Your task to perform on an android device: allow notifications from all sites in the chrome app Image 0: 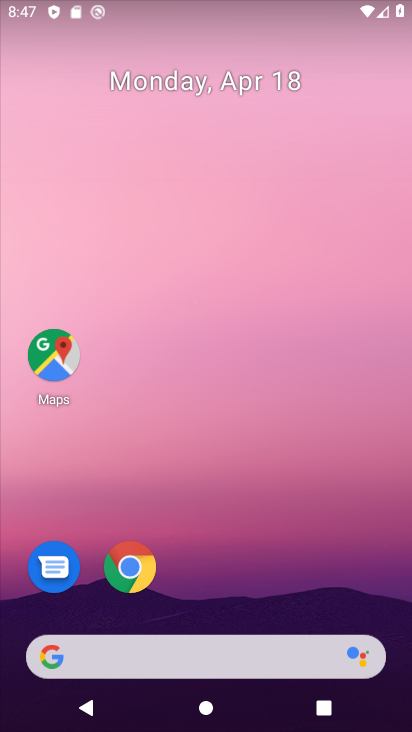
Step 0: click (129, 570)
Your task to perform on an android device: allow notifications from all sites in the chrome app Image 1: 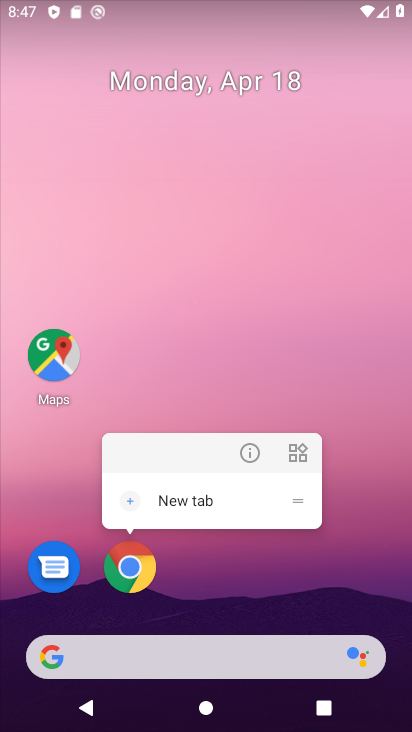
Step 1: click (139, 564)
Your task to perform on an android device: allow notifications from all sites in the chrome app Image 2: 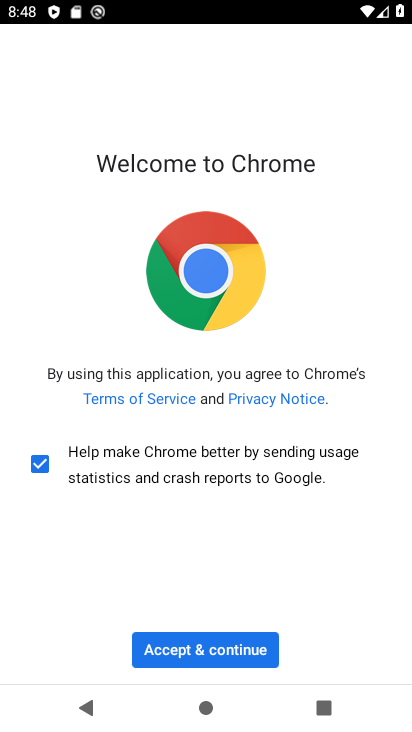
Step 2: click (192, 640)
Your task to perform on an android device: allow notifications from all sites in the chrome app Image 3: 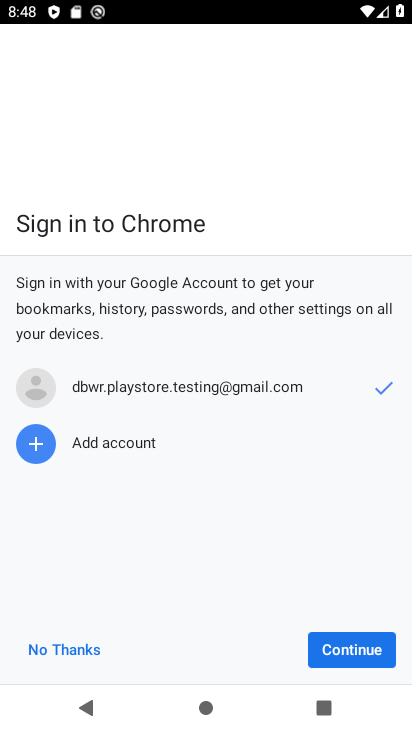
Step 3: click (367, 647)
Your task to perform on an android device: allow notifications from all sites in the chrome app Image 4: 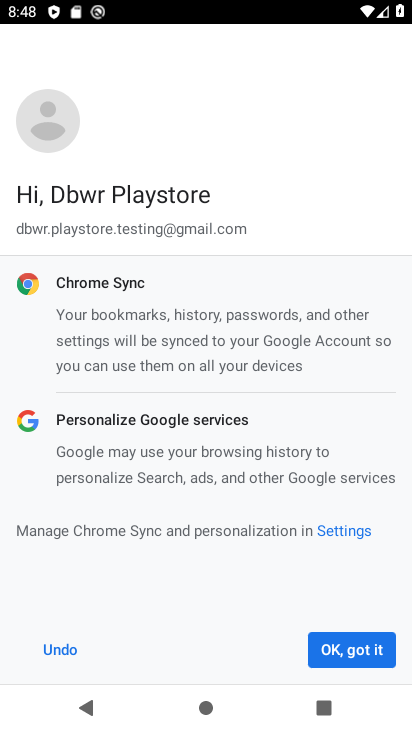
Step 4: click (369, 647)
Your task to perform on an android device: allow notifications from all sites in the chrome app Image 5: 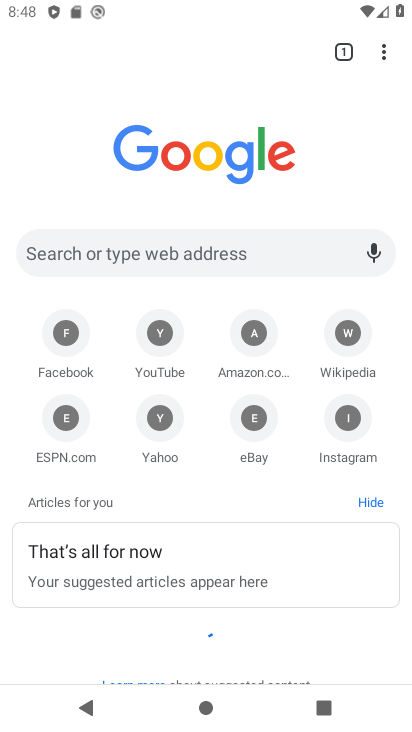
Step 5: click (390, 53)
Your task to perform on an android device: allow notifications from all sites in the chrome app Image 6: 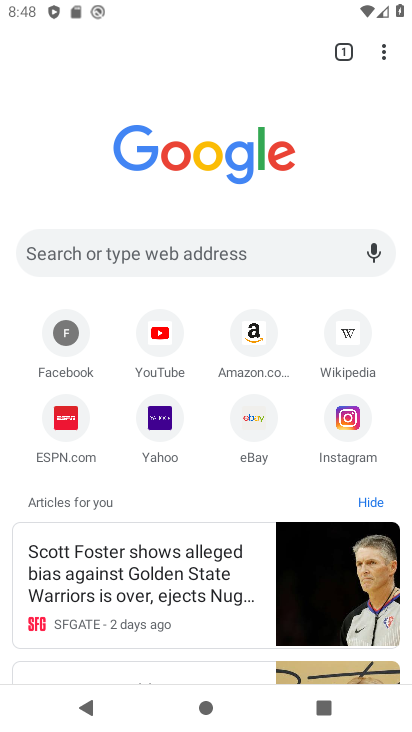
Step 6: click (382, 50)
Your task to perform on an android device: allow notifications from all sites in the chrome app Image 7: 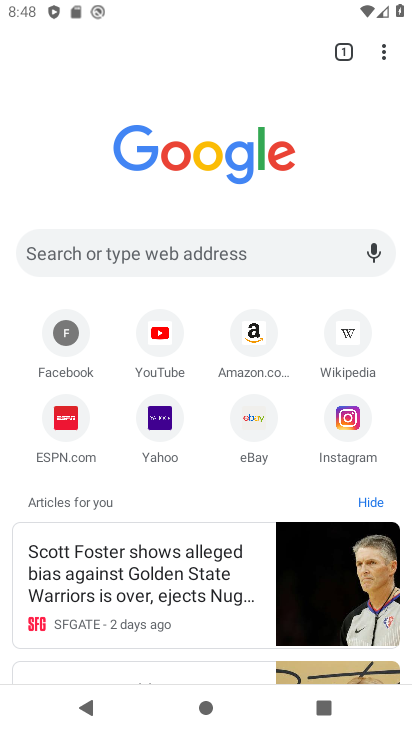
Step 7: click (382, 50)
Your task to perform on an android device: allow notifications from all sites in the chrome app Image 8: 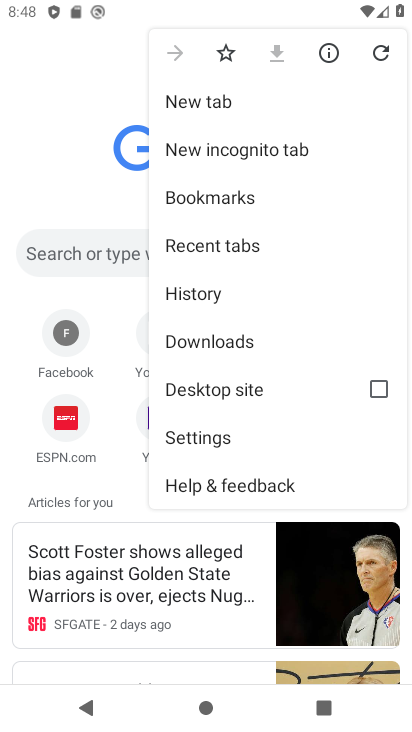
Step 8: click (208, 441)
Your task to perform on an android device: allow notifications from all sites in the chrome app Image 9: 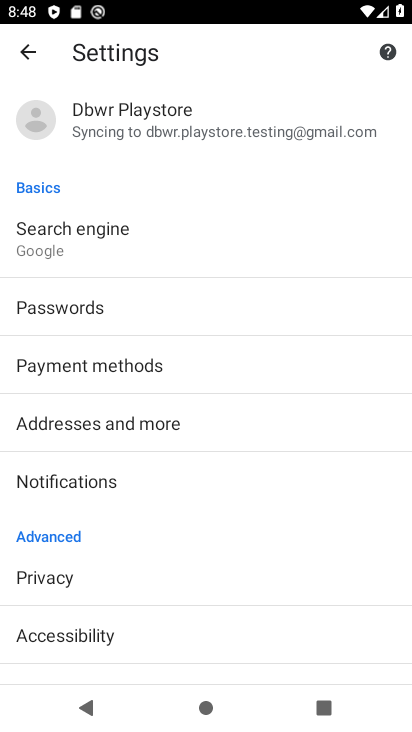
Step 9: drag from (201, 569) to (211, 340)
Your task to perform on an android device: allow notifications from all sites in the chrome app Image 10: 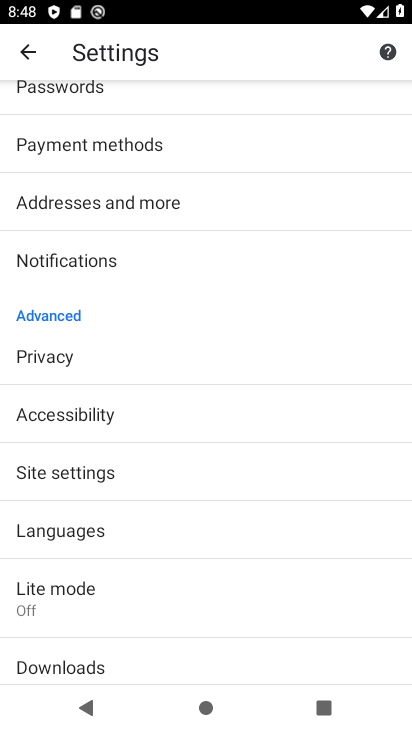
Step 10: click (93, 262)
Your task to perform on an android device: allow notifications from all sites in the chrome app Image 11: 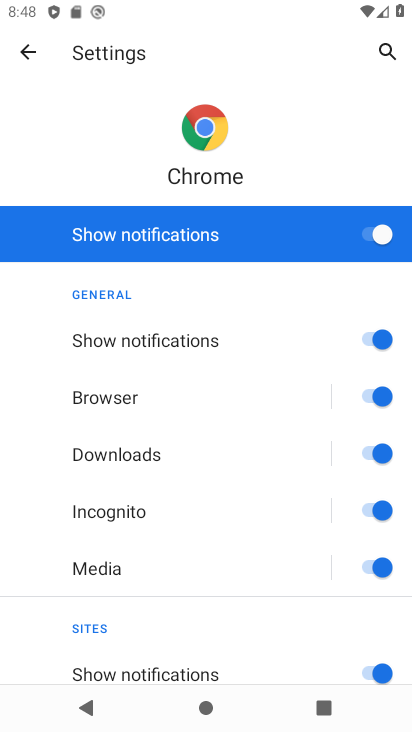
Step 11: task complete